Your task to perform on an android device: Go to wifi settings Image 0: 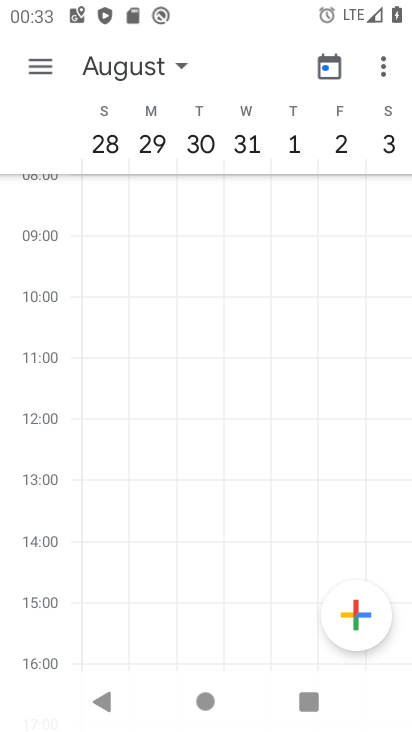
Step 0: press home button
Your task to perform on an android device: Go to wifi settings Image 1: 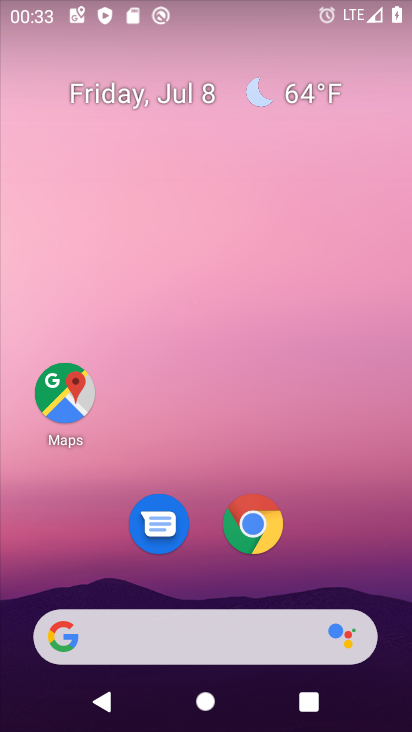
Step 1: drag from (209, 452) to (278, 13)
Your task to perform on an android device: Go to wifi settings Image 2: 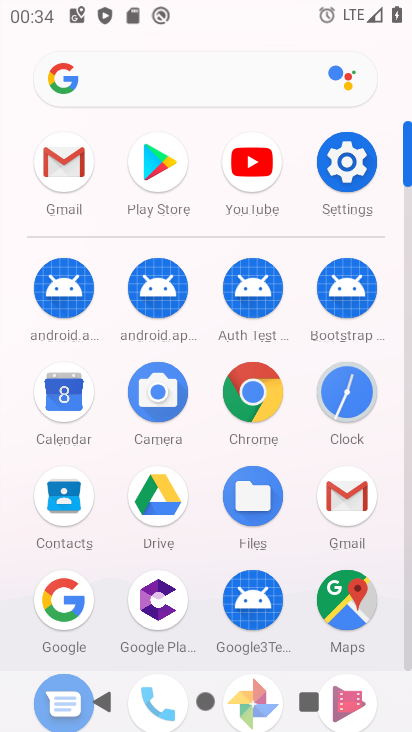
Step 2: click (347, 165)
Your task to perform on an android device: Go to wifi settings Image 3: 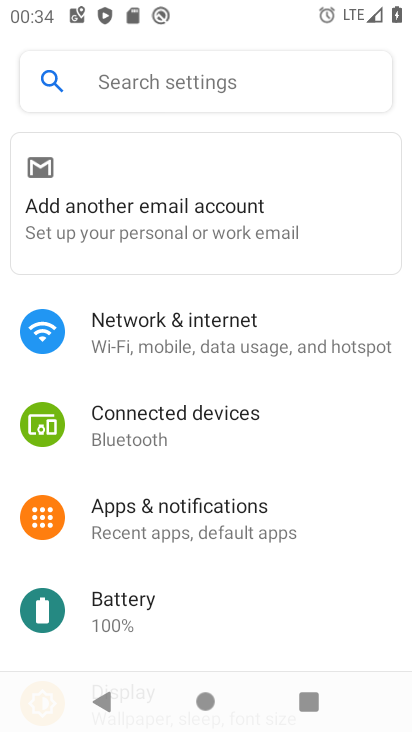
Step 3: click (224, 337)
Your task to perform on an android device: Go to wifi settings Image 4: 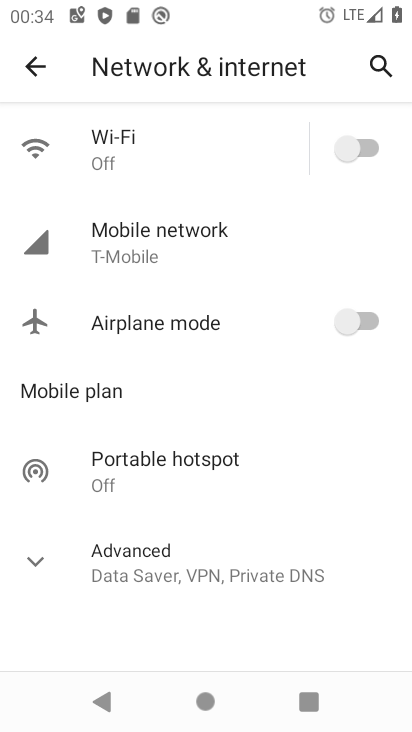
Step 4: click (162, 154)
Your task to perform on an android device: Go to wifi settings Image 5: 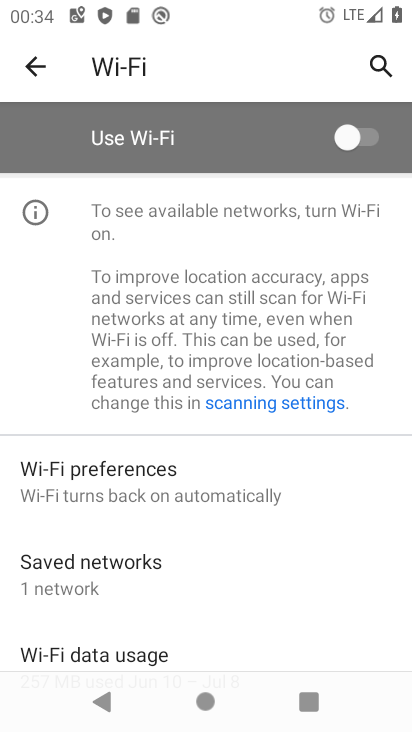
Step 5: task complete